Your task to perform on an android device: check storage Image 0: 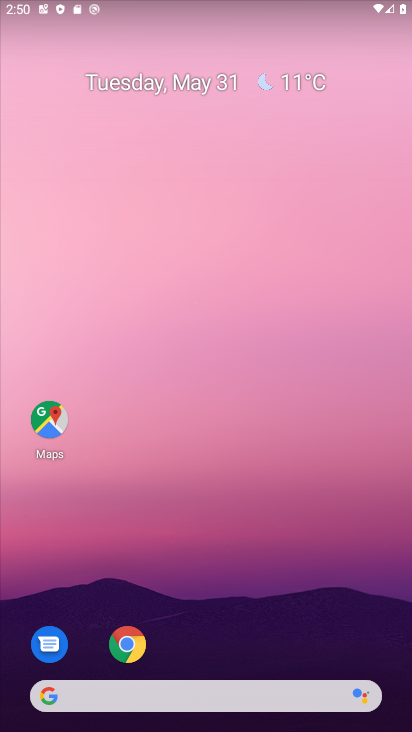
Step 0: drag from (213, 624) to (228, 193)
Your task to perform on an android device: check storage Image 1: 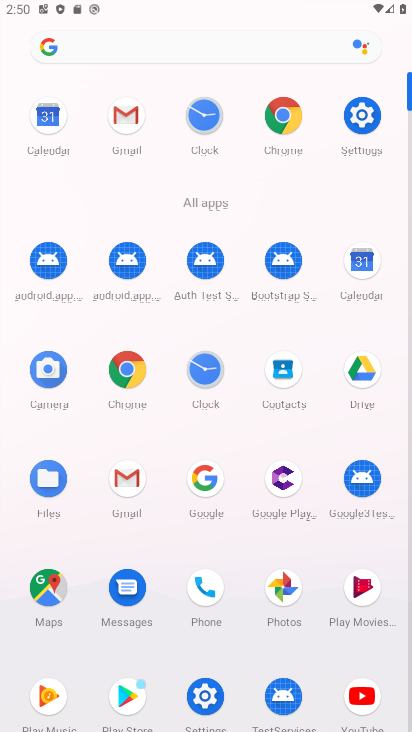
Step 1: click (355, 115)
Your task to perform on an android device: check storage Image 2: 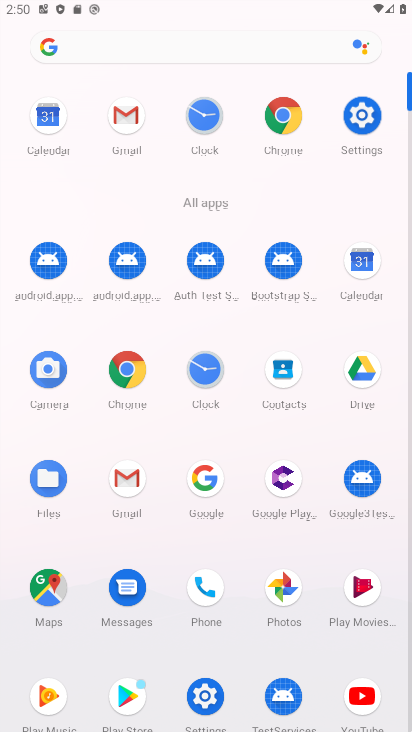
Step 2: click (355, 115)
Your task to perform on an android device: check storage Image 3: 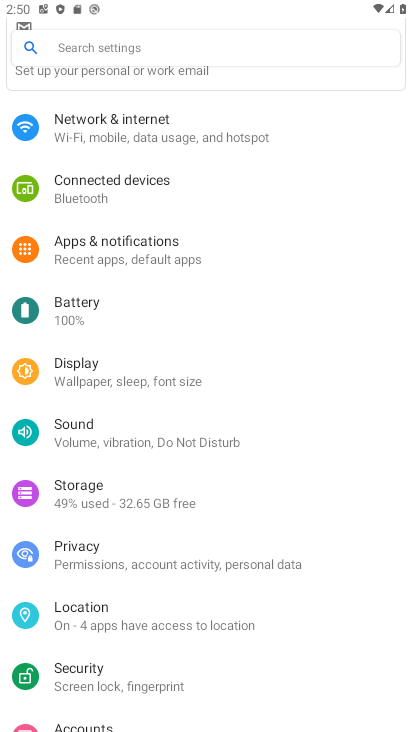
Step 3: click (62, 481)
Your task to perform on an android device: check storage Image 4: 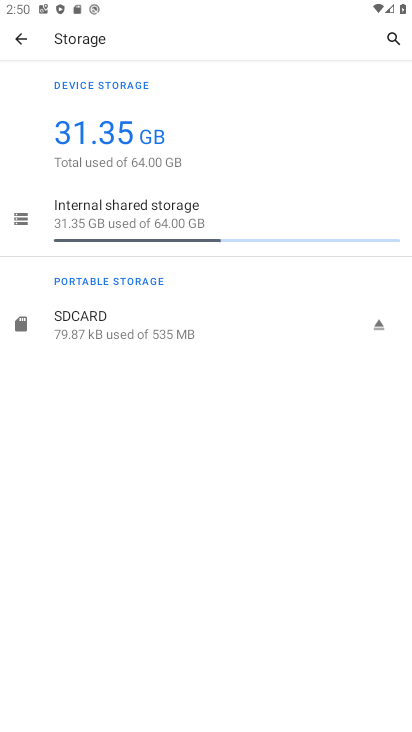
Step 4: task complete